Your task to perform on an android device: toggle wifi Image 0: 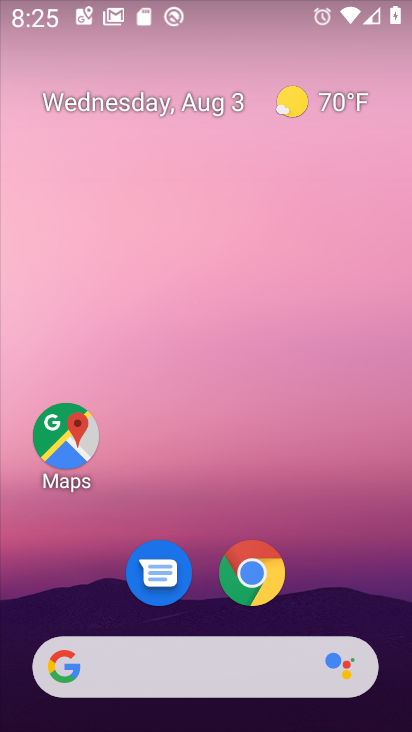
Step 0: drag from (323, 616) to (273, 0)
Your task to perform on an android device: toggle wifi Image 1: 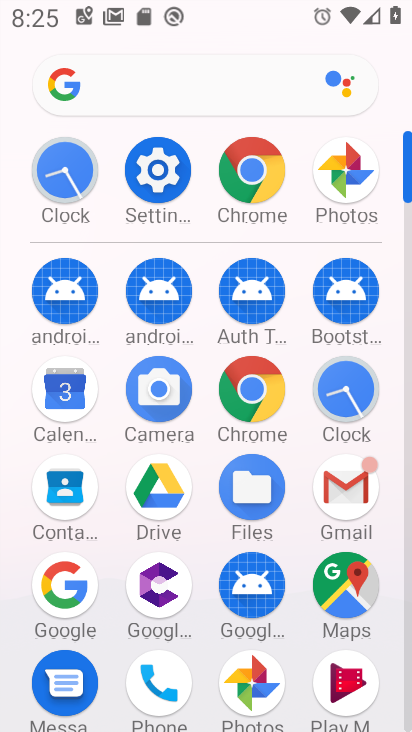
Step 1: click (154, 170)
Your task to perform on an android device: toggle wifi Image 2: 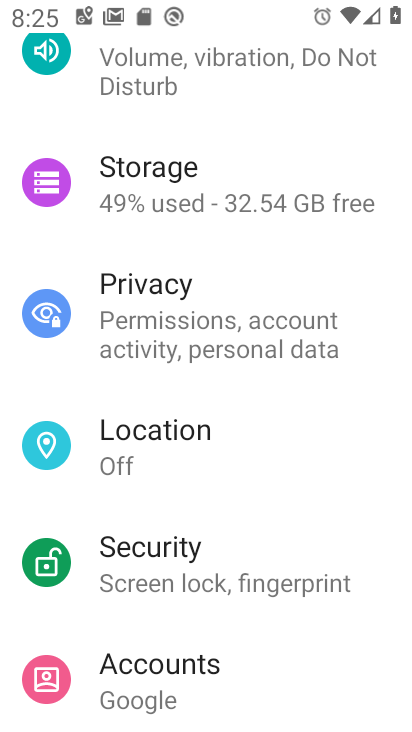
Step 2: drag from (325, 148) to (362, 631)
Your task to perform on an android device: toggle wifi Image 3: 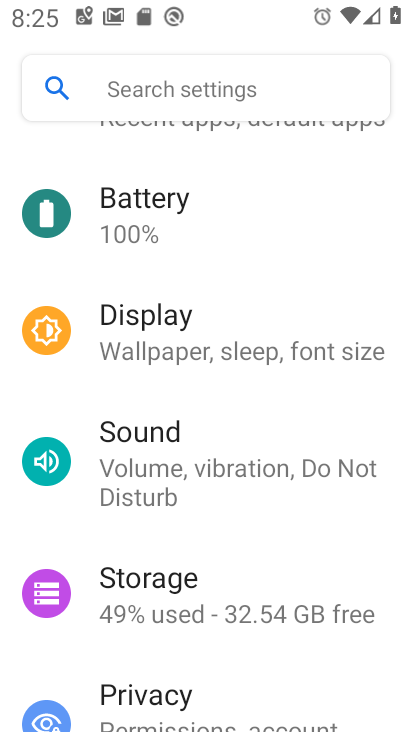
Step 3: drag from (354, 313) to (379, 705)
Your task to perform on an android device: toggle wifi Image 4: 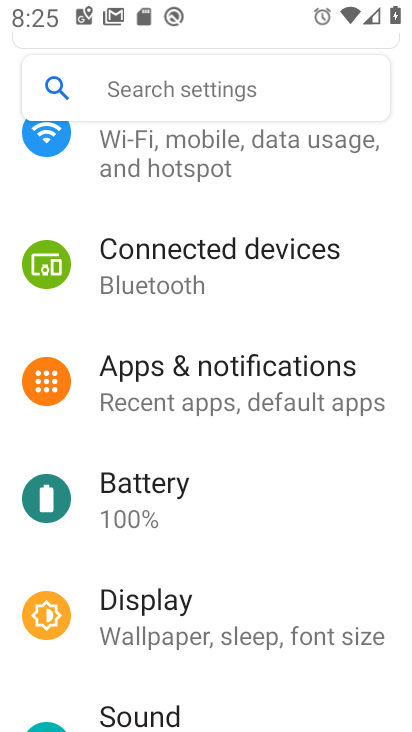
Step 4: click (169, 163)
Your task to perform on an android device: toggle wifi Image 5: 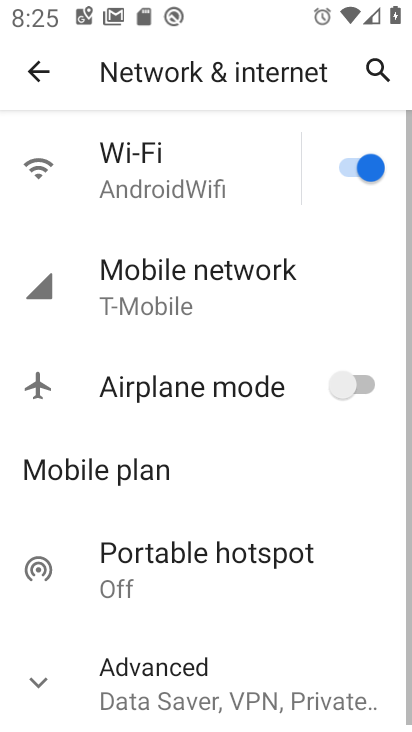
Step 5: click (358, 172)
Your task to perform on an android device: toggle wifi Image 6: 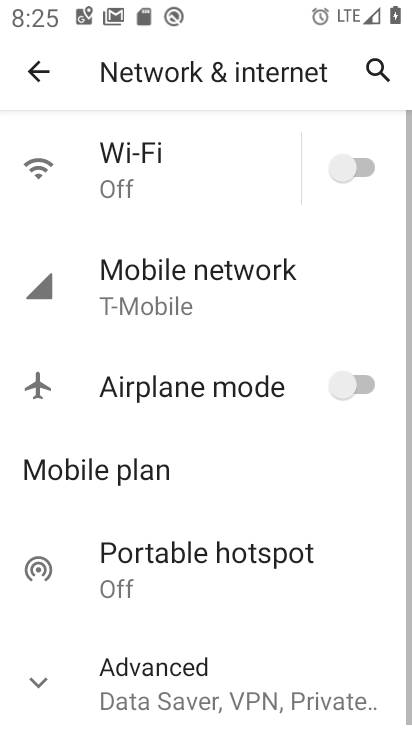
Step 6: task complete